Your task to perform on an android device: star an email in the gmail app Image 0: 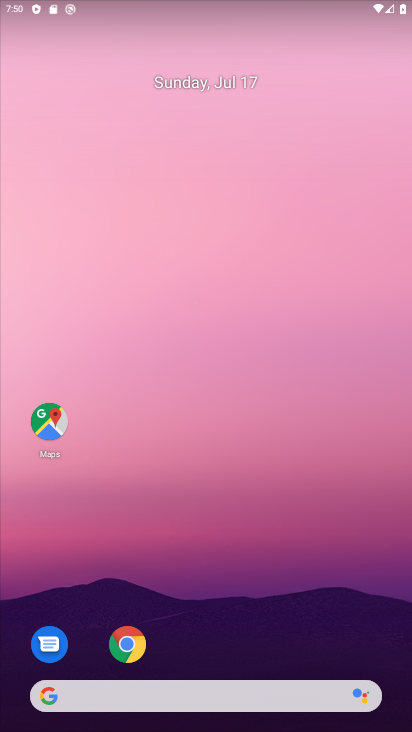
Step 0: drag from (181, 597) to (164, 143)
Your task to perform on an android device: star an email in the gmail app Image 1: 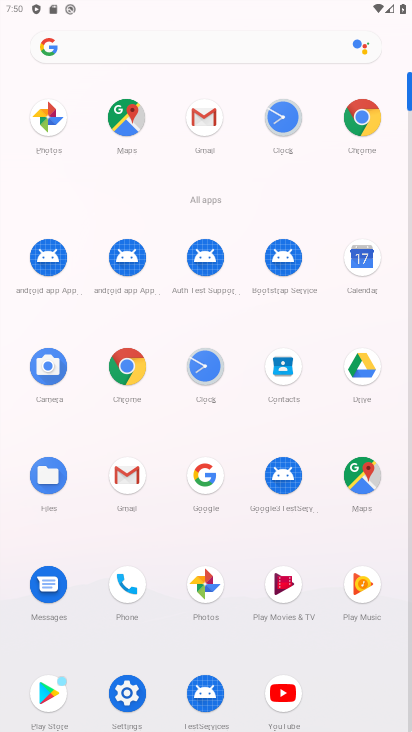
Step 1: click (196, 107)
Your task to perform on an android device: star an email in the gmail app Image 2: 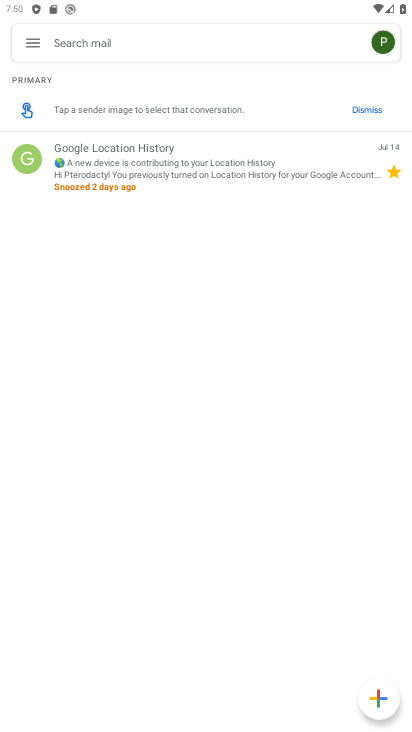
Step 2: task complete